Your task to perform on an android device: Add "logitech g502" to the cart on bestbuy.com, then select checkout. Image 0: 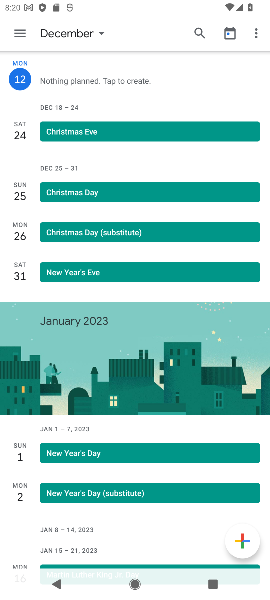
Step 0: press home button
Your task to perform on an android device: Add "logitech g502" to the cart on bestbuy.com, then select checkout. Image 1: 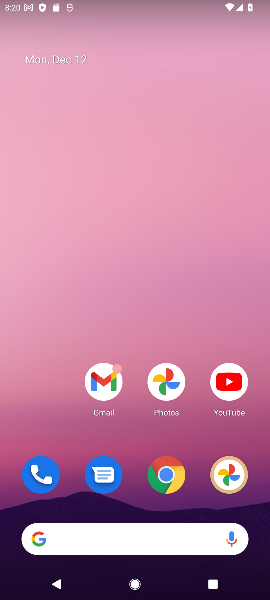
Step 1: click (167, 471)
Your task to perform on an android device: Add "logitech g502" to the cart on bestbuy.com, then select checkout. Image 2: 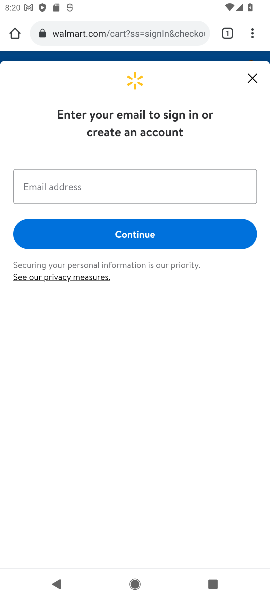
Step 2: click (119, 33)
Your task to perform on an android device: Add "logitech g502" to the cart on bestbuy.com, then select checkout. Image 3: 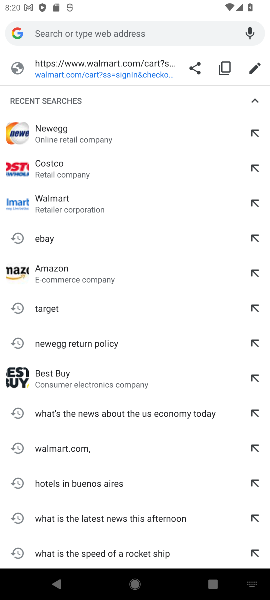
Step 3: type "bestbuy.com"
Your task to perform on an android device: Add "logitech g502" to the cart on bestbuy.com, then select checkout. Image 4: 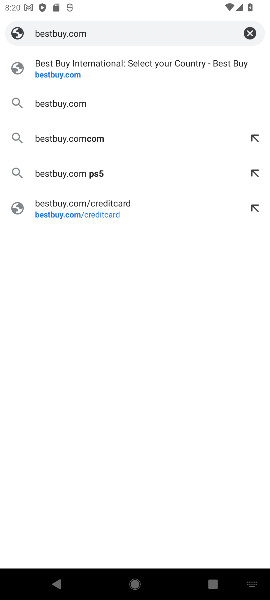
Step 4: click (54, 106)
Your task to perform on an android device: Add "logitech g502" to the cart on bestbuy.com, then select checkout. Image 5: 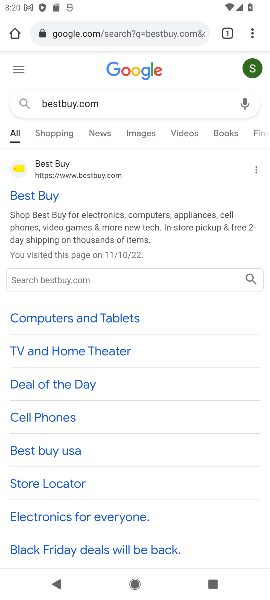
Step 5: click (33, 194)
Your task to perform on an android device: Add "logitech g502" to the cart on bestbuy.com, then select checkout. Image 6: 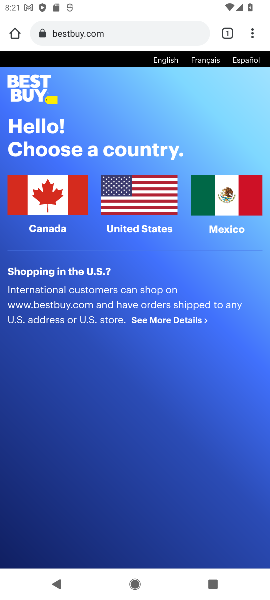
Step 6: click (147, 192)
Your task to perform on an android device: Add "logitech g502" to the cart on bestbuy.com, then select checkout. Image 7: 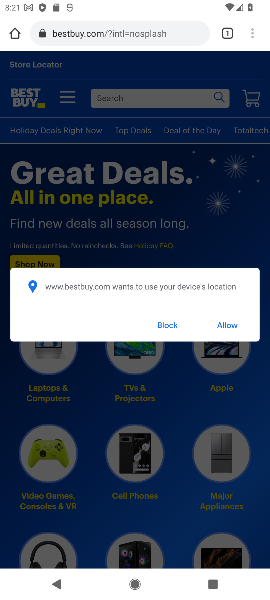
Step 7: click (231, 328)
Your task to perform on an android device: Add "logitech g502" to the cart on bestbuy.com, then select checkout. Image 8: 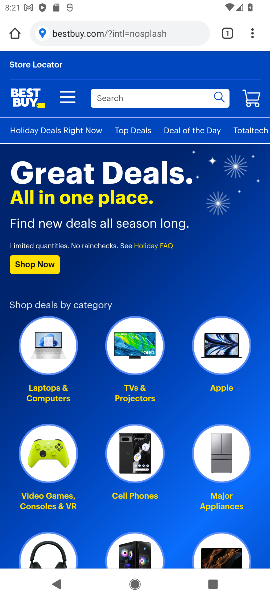
Step 8: click (134, 94)
Your task to perform on an android device: Add "logitech g502" to the cart on bestbuy.com, then select checkout. Image 9: 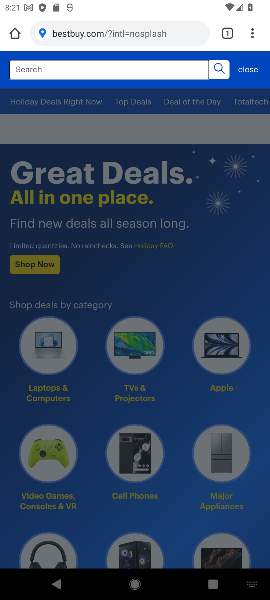
Step 9: click (139, 71)
Your task to perform on an android device: Add "logitech g502" to the cart on bestbuy.com, then select checkout. Image 10: 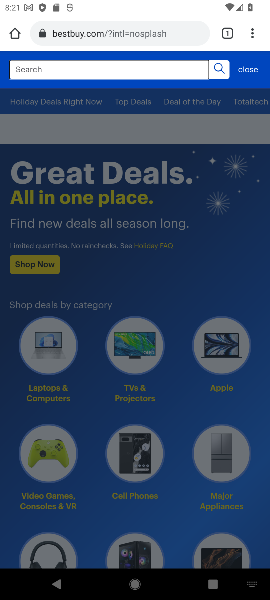
Step 10: type "logitech g502"
Your task to perform on an android device: Add "logitech g502" to the cart on bestbuy.com, then select checkout. Image 11: 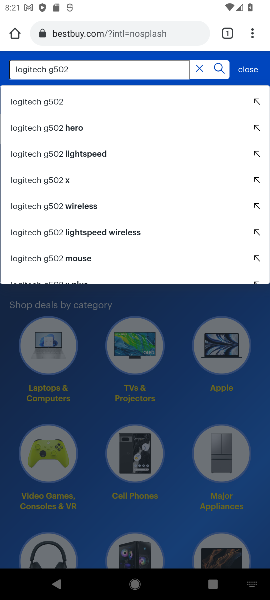
Step 11: click (50, 103)
Your task to perform on an android device: Add "logitech g502" to the cart on bestbuy.com, then select checkout. Image 12: 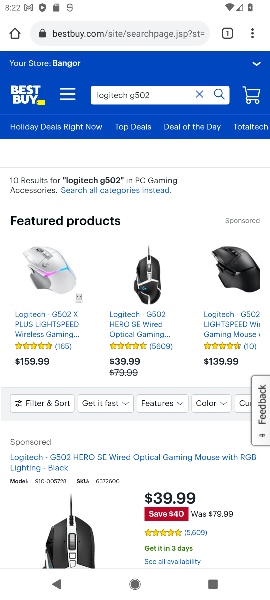
Step 12: click (95, 519)
Your task to perform on an android device: Add "logitech g502" to the cart on bestbuy.com, then select checkout. Image 13: 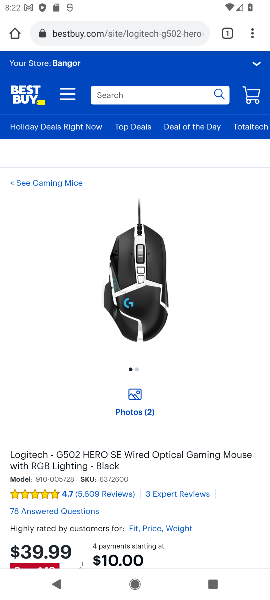
Step 13: drag from (155, 482) to (184, 206)
Your task to perform on an android device: Add "logitech g502" to the cart on bestbuy.com, then select checkout. Image 14: 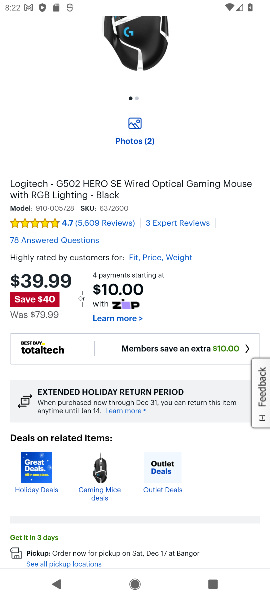
Step 14: drag from (161, 465) to (197, 266)
Your task to perform on an android device: Add "logitech g502" to the cart on bestbuy.com, then select checkout. Image 15: 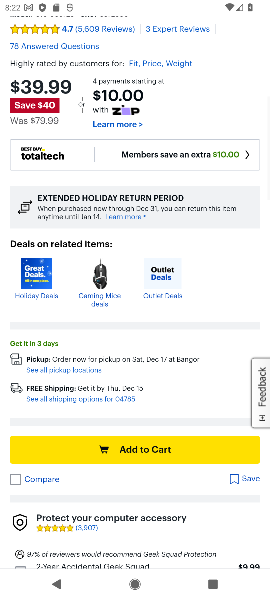
Step 15: click (131, 448)
Your task to perform on an android device: Add "logitech g502" to the cart on bestbuy.com, then select checkout. Image 16: 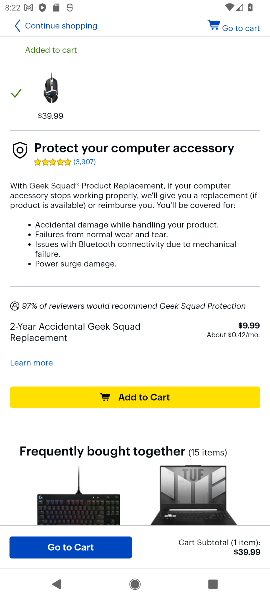
Step 16: click (73, 549)
Your task to perform on an android device: Add "logitech g502" to the cart on bestbuy.com, then select checkout. Image 17: 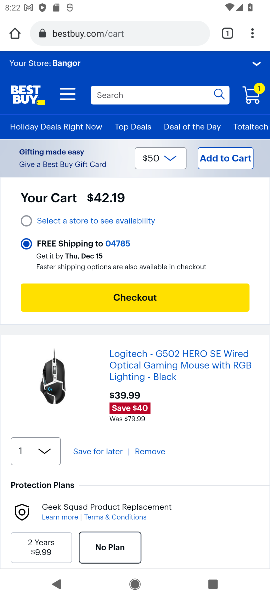
Step 17: click (125, 299)
Your task to perform on an android device: Add "logitech g502" to the cart on bestbuy.com, then select checkout. Image 18: 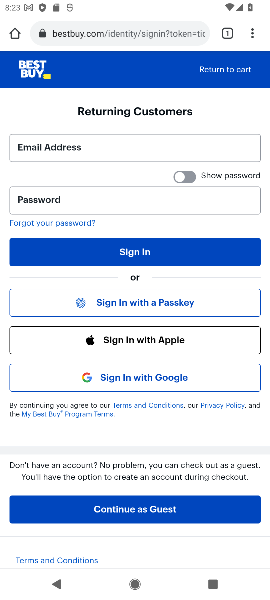
Step 18: task complete